Your task to perform on an android device: find photos in the google photos app Image 0: 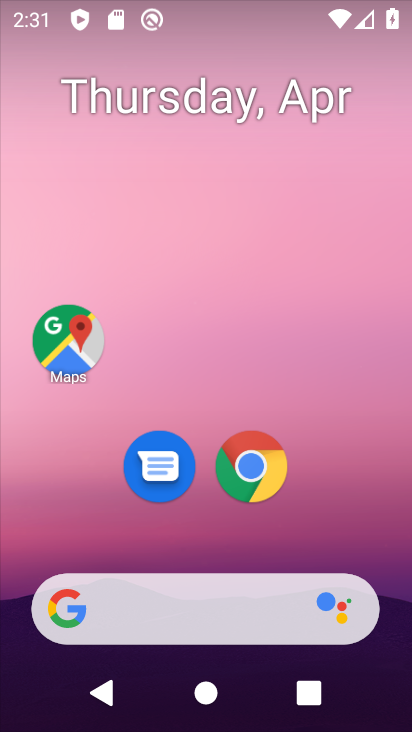
Step 0: drag from (325, 496) to (345, 96)
Your task to perform on an android device: find photos in the google photos app Image 1: 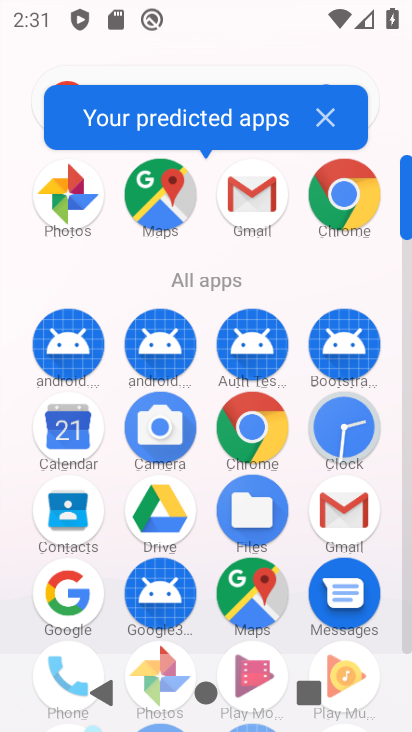
Step 1: click (73, 178)
Your task to perform on an android device: find photos in the google photos app Image 2: 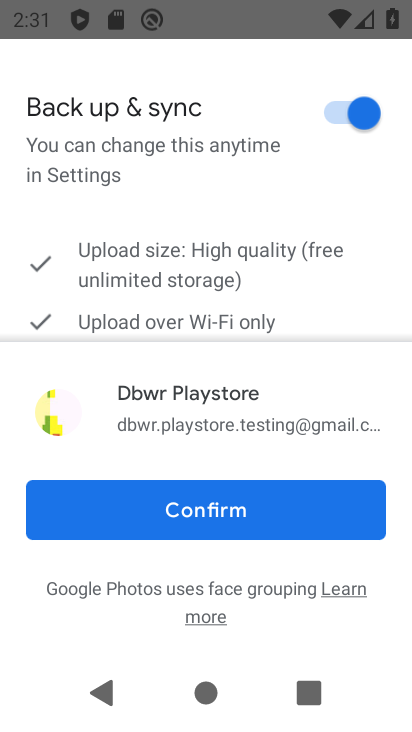
Step 2: click (243, 504)
Your task to perform on an android device: find photos in the google photos app Image 3: 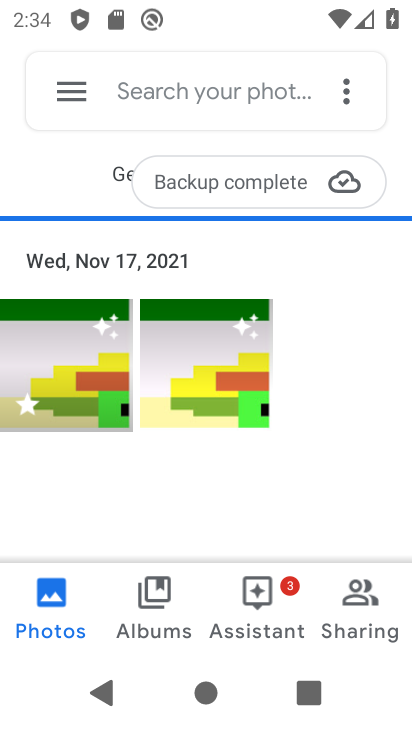
Step 3: task complete